Your task to perform on an android device: Turn on the flashlight Image 0: 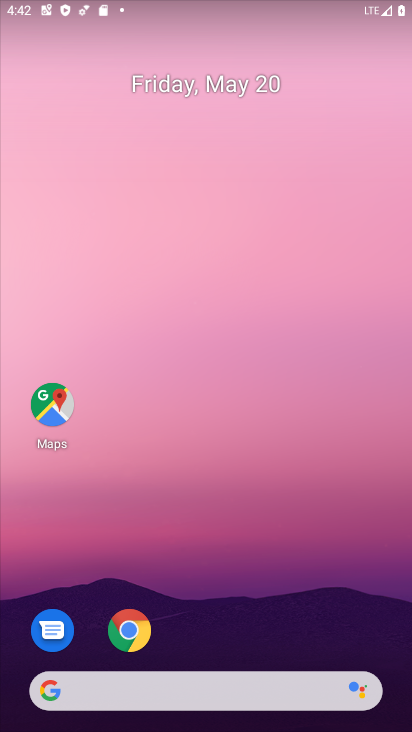
Step 0: drag from (282, 574) to (222, 89)
Your task to perform on an android device: Turn on the flashlight Image 1: 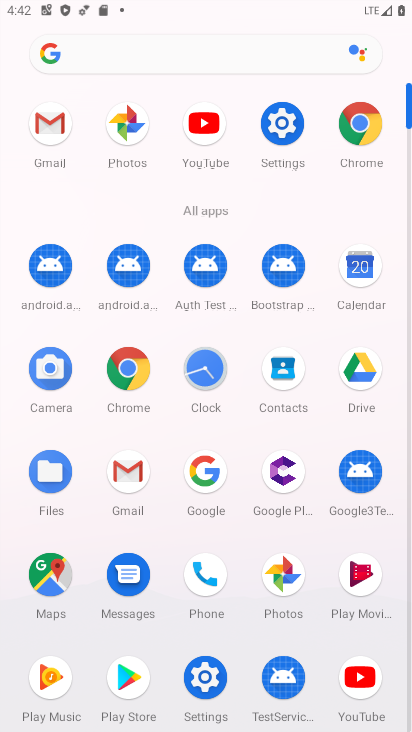
Step 1: click (293, 116)
Your task to perform on an android device: Turn on the flashlight Image 2: 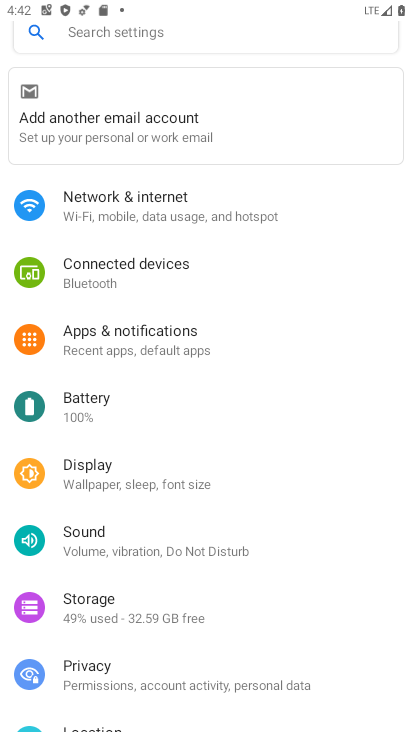
Step 2: click (209, 36)
Your task to perform on an android device: Turn on the flashlight Image 3: 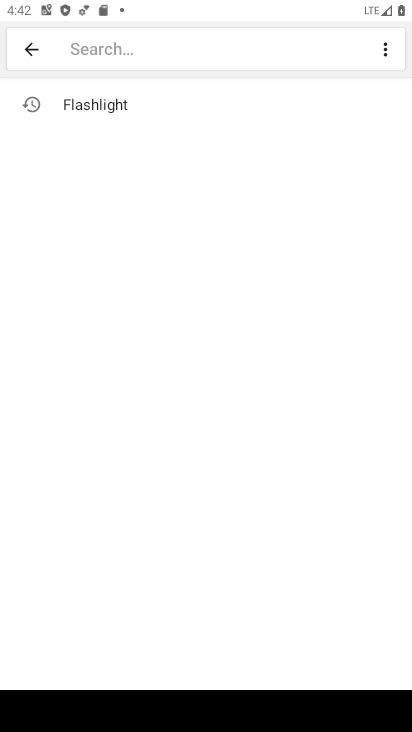
Step 3: click (110, 104)
Your task to perform on an android device: Turn on the flashlight Image 4: 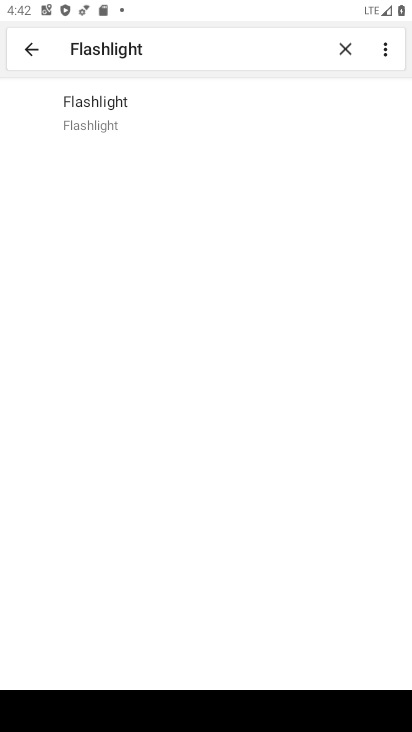
Step 4: click (104, 100)
Your task to perform on an android device: Turn on the flashlight Image 5: 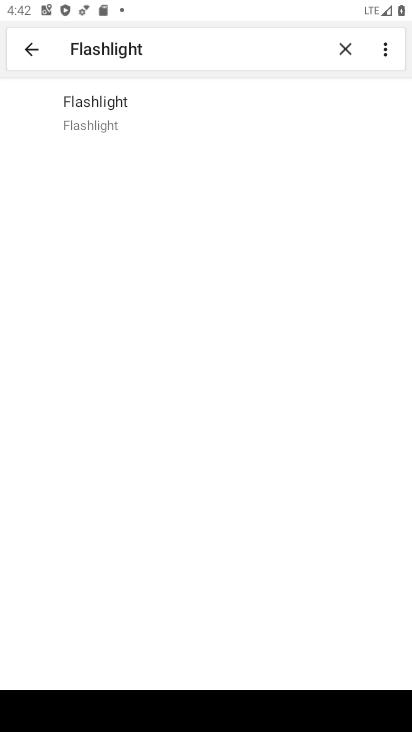
Step 5: task complete